Your task to perform on an android device: turn on data saver in the chrome app Image 0: 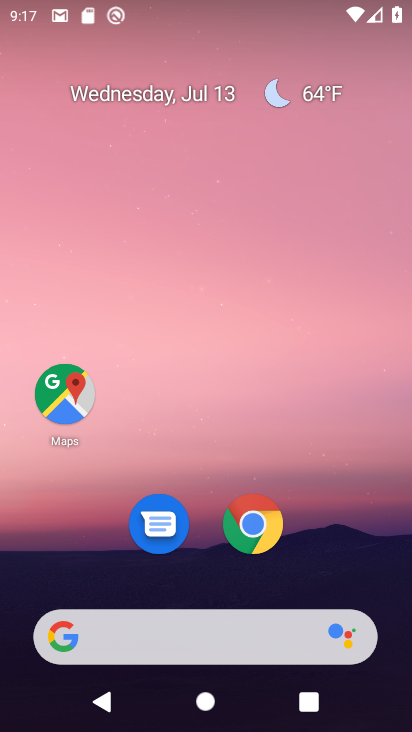
Step 0: drag from (196, 577) to (216, 1)
Your task to perform on an android device: turn on data saver in the chrome app Image 1: 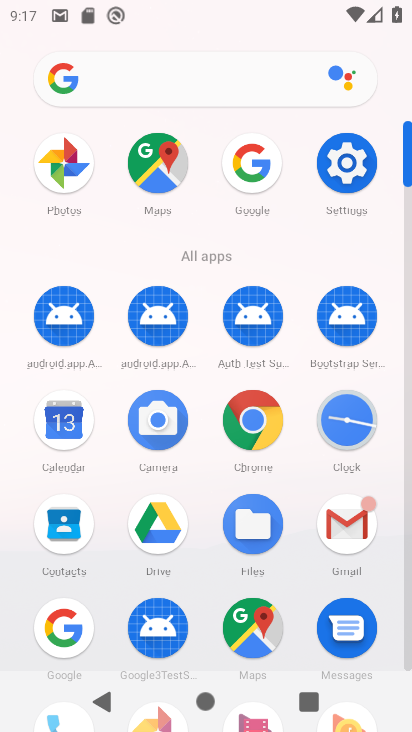
Step 1: click (256, 424)
Your task to perform on an android device: turn on data saver in the chrome app Image 2: 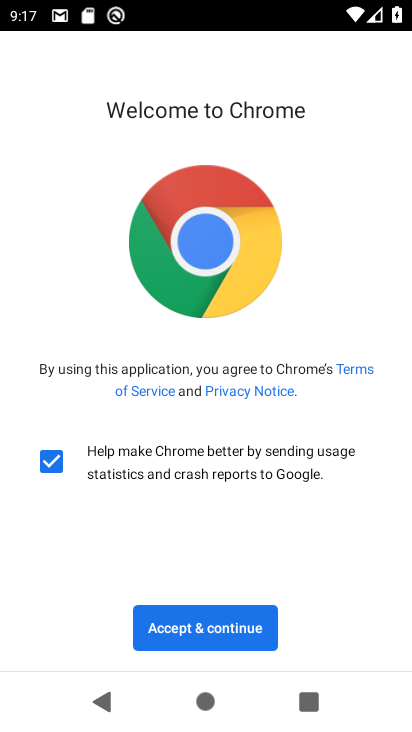
Step 2: click (259, 621)
Your task to perform on an android device: turn on data saver in the chrome app Image 3: 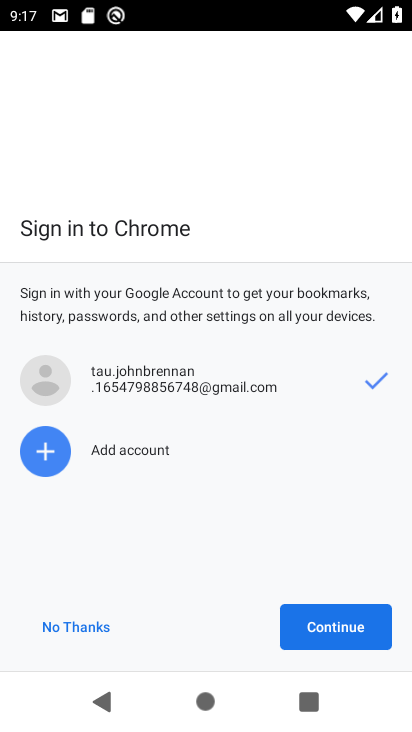
Step 3: click (356, 628)
Your task to perform on an android device: turn on data saver in the chrome app Image 4: 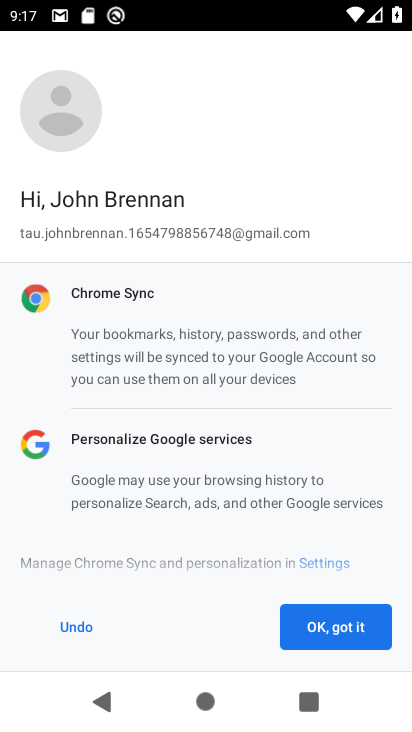
Step 4: click (367, 624)
Your task to perform on an android device: turn on data saver in the chrome app Image 5: 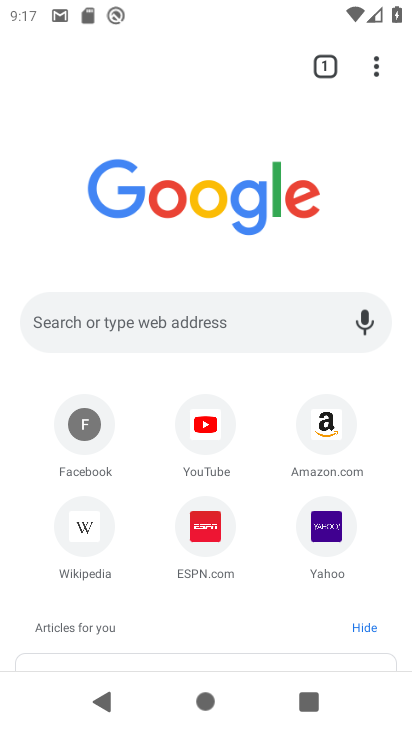
Step 5: drag from (370, 53) to (132, 550)
Your task to perform on an android device: turn on data saver in the chrome app Image 6: 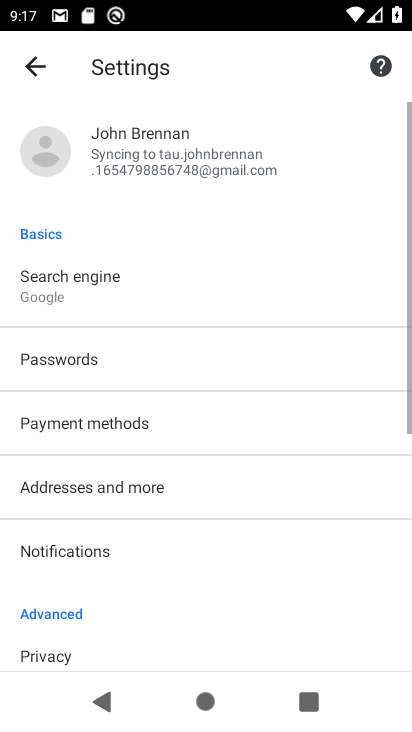
Step 6: drag from (132, 549) to (170, 17)
Your task to perform on an android device: turn on data saver in the chrome app Image 7: 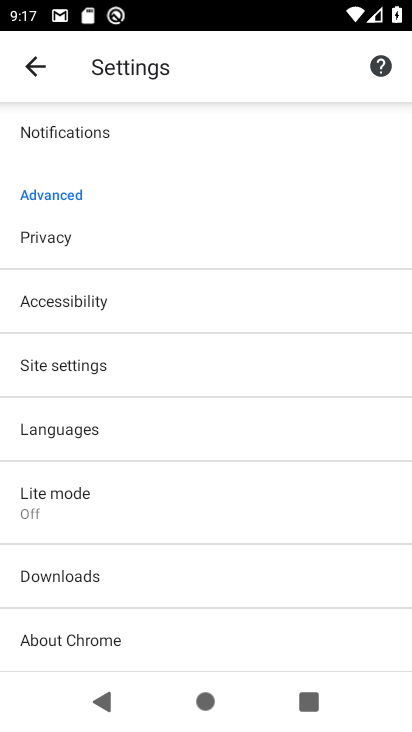
Step 7: click (83, 501)
Your task to perform on an android device: turn on data saver in the chrome app Image 8: 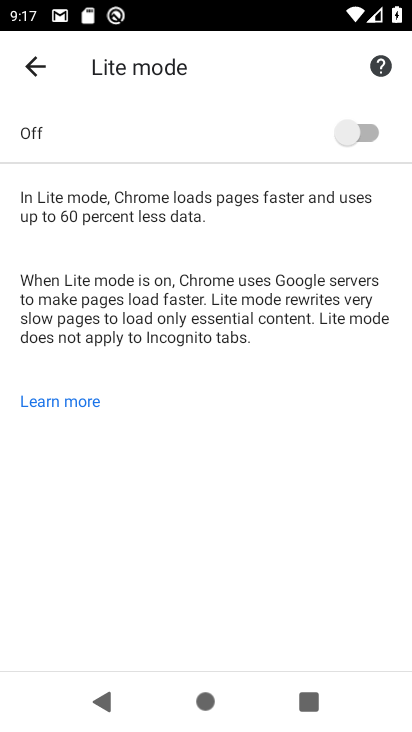
Step 8: click (356, 129)
Your task to perform on an android device: turn on data saver in the chrome app Image 9: 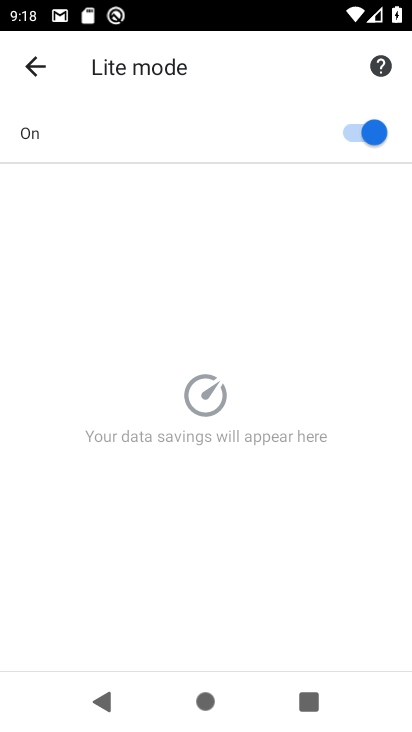
Step 9: task complete